Your task to perform on an android device: Install the Wikipedia app Image 0: 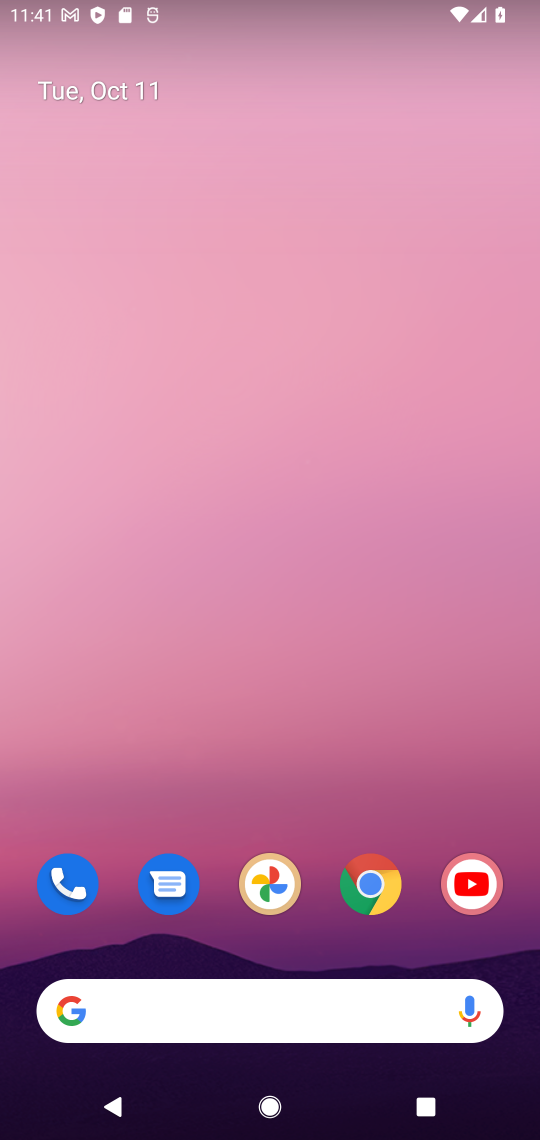
Step 0: drag from (297, 528) to (317, 424)
Your task to perform on an android device: Install the Wikipedia app Image 1: 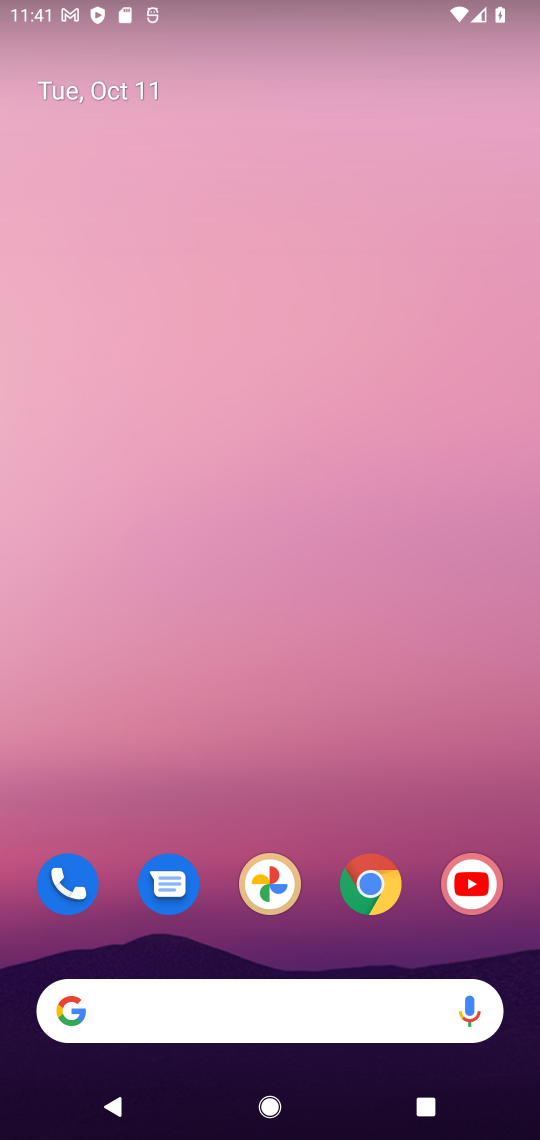
Step 1: drag from (287, 804) to (380, 106)
Your task to perform on an android device: Install the Wikipedia app Image 2: 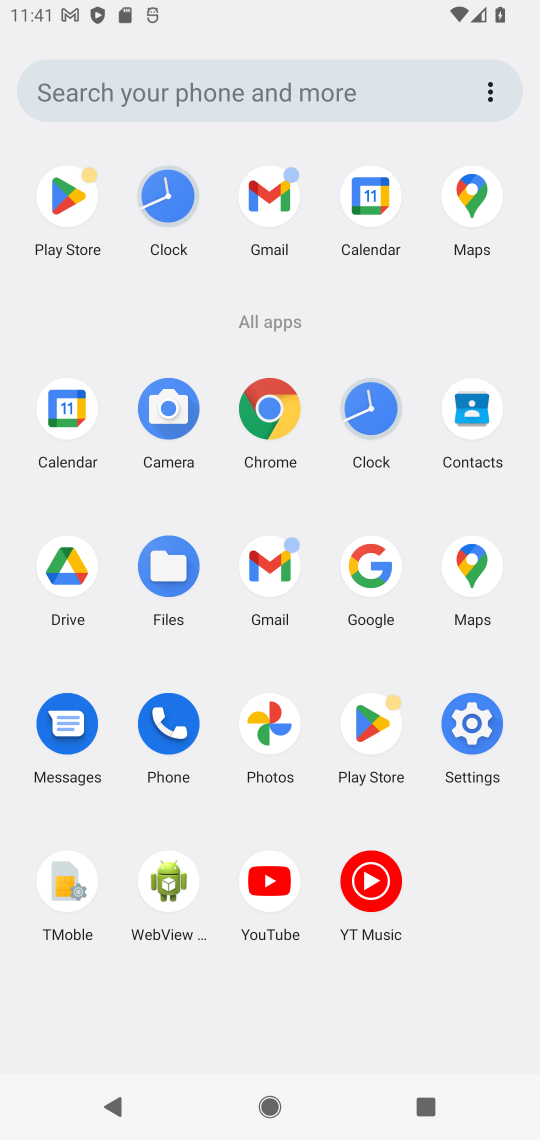
Step 2: click (362, 722)
Your task to perform on an android device: Install the Wikipedia app Image 3: 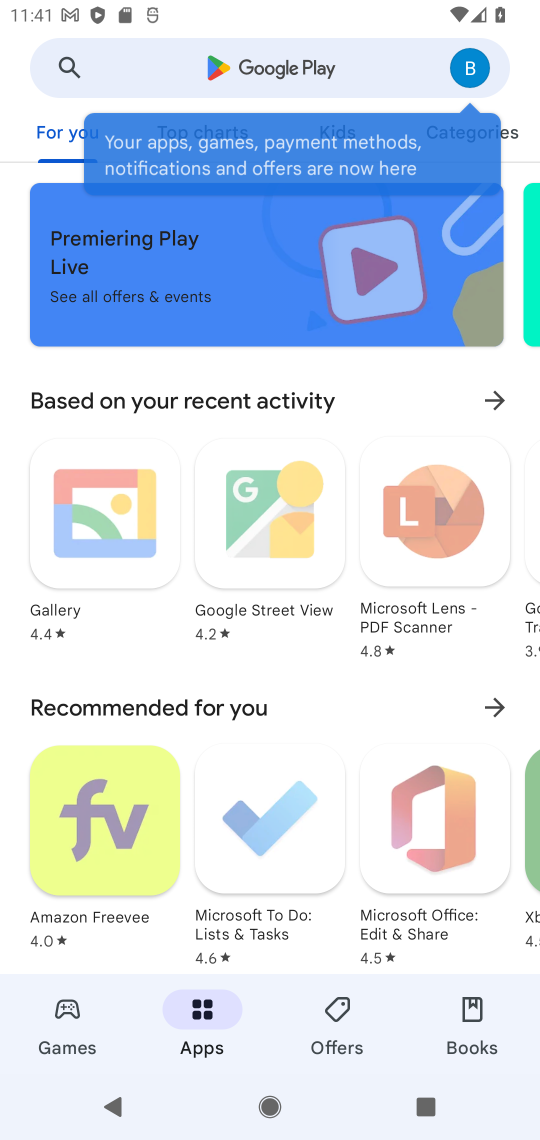
Step 3: click (193, 75)
Your task to perform on an android device: Install the Wikipedia app Image 4: 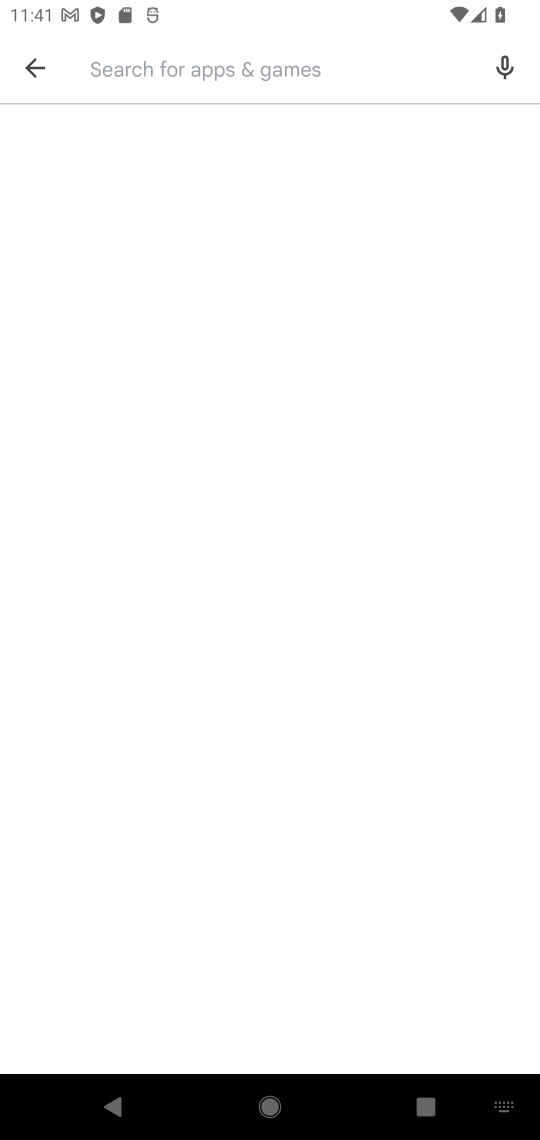
Step 4: type "Wikipedia"
Your task to perform on an android device: Install the Wikipedia app Image 5: 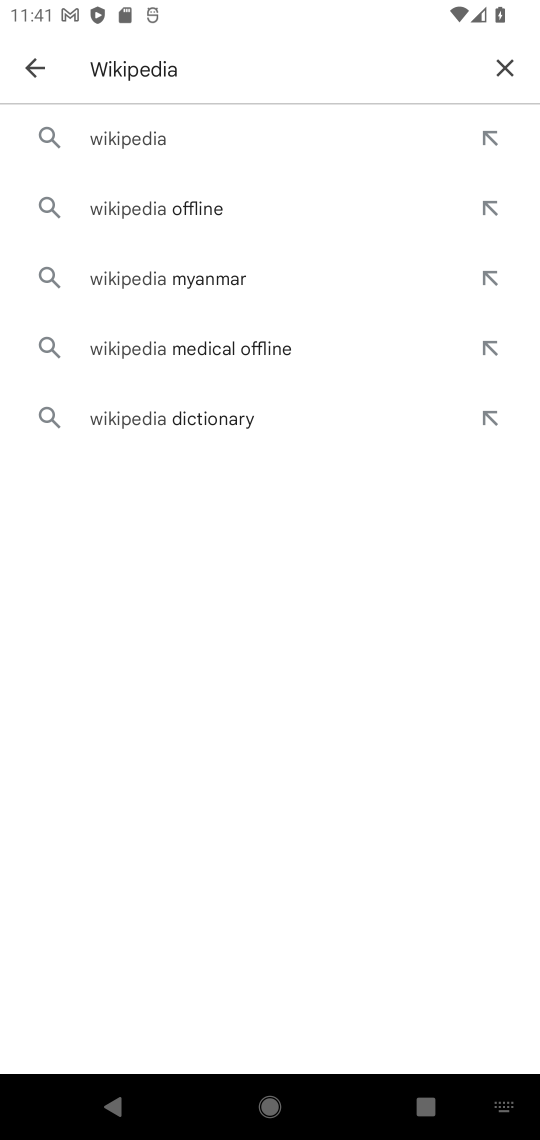
Step 5: click (178, 136)
Your task to perform on an android device: Install the Wikipedia app Image 6: 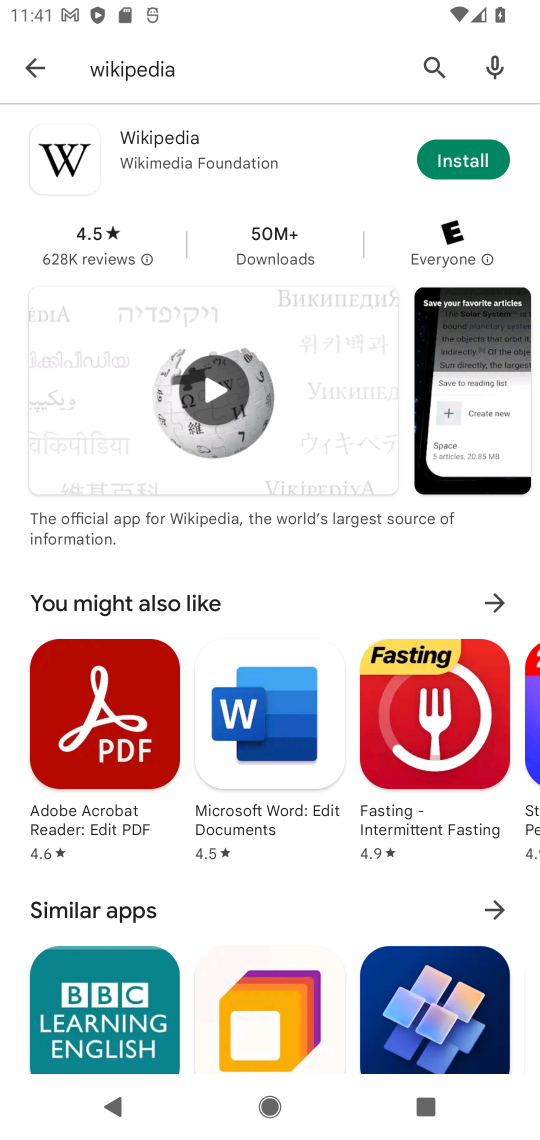
Step 6: click (456, 153)
Your task to perform on an android device: Install the Wikipedia app Image 7: 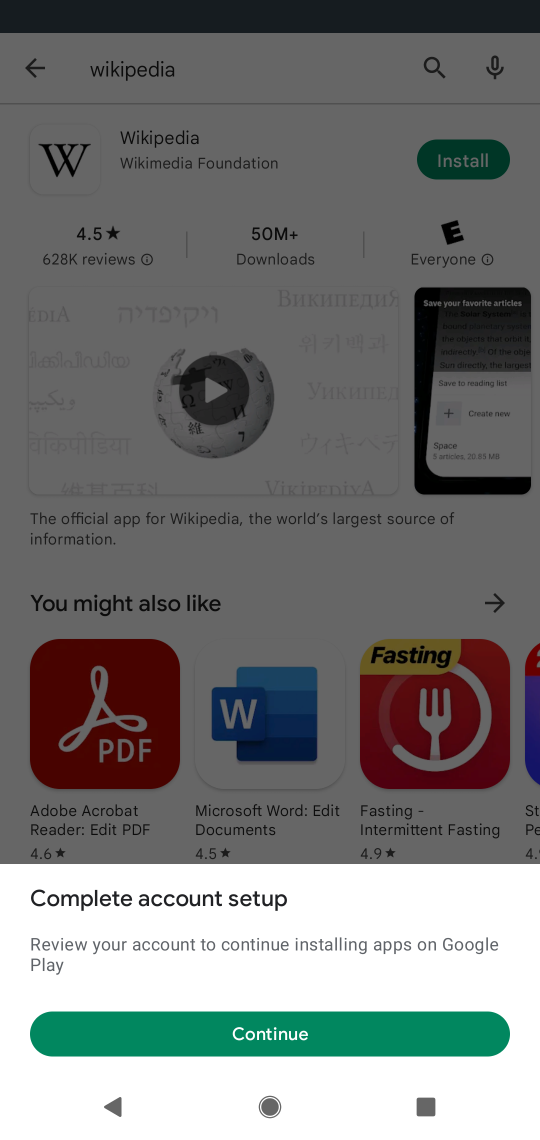
Step 7: click (230, 1042)
Your task to perform on an android device: Install the Wikipedia app Image 8: 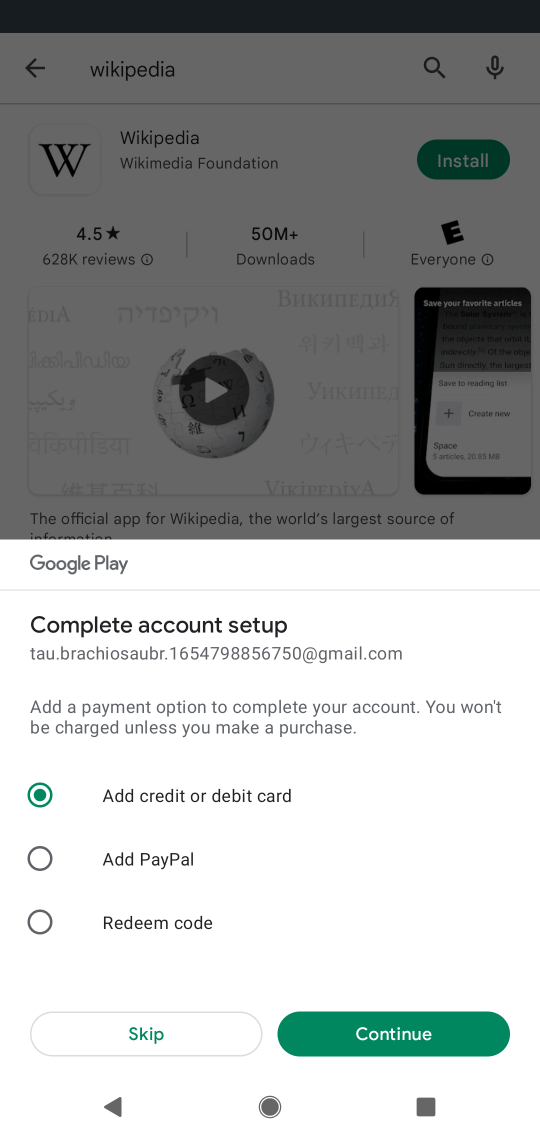
Step 8: click (165, 1043)
Your task to perform on an android device: Install the Wikipedia app Image 9: 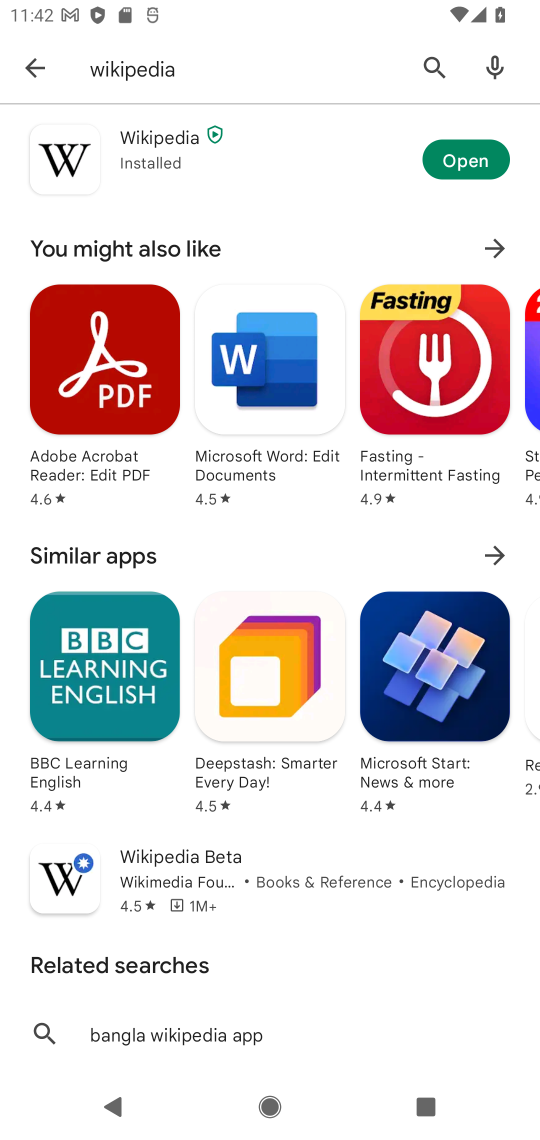
Step 9: task complete